Your task to perform on an android device: Open Google Chrome and click the shortcut for Amazon.com Image 0: 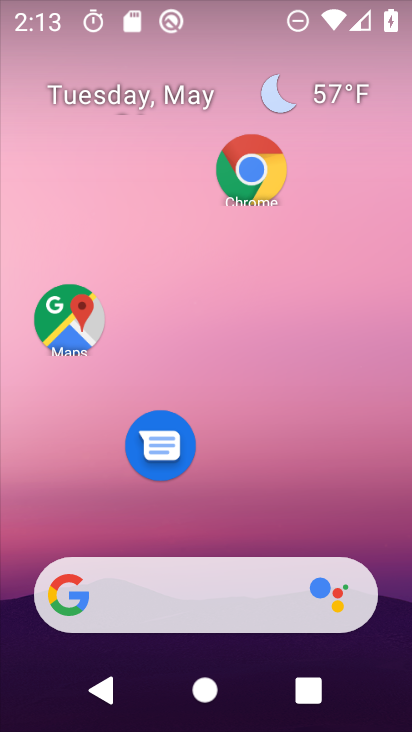
Step 0: click (250, 175)
Your task to perform on an android device: Open Google Chrome and click the shortcut for Amazon.com Image 1: 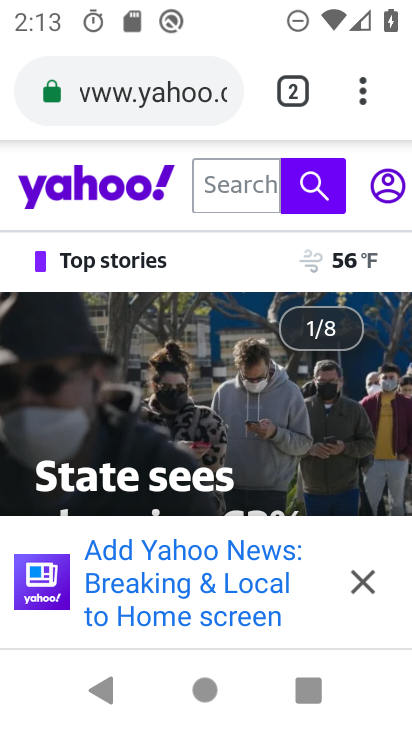
Step 1: click (361, 100)
Your task to perform on an android device: Open Google Chrome and click the shortcut for Amazon.com Image 2: 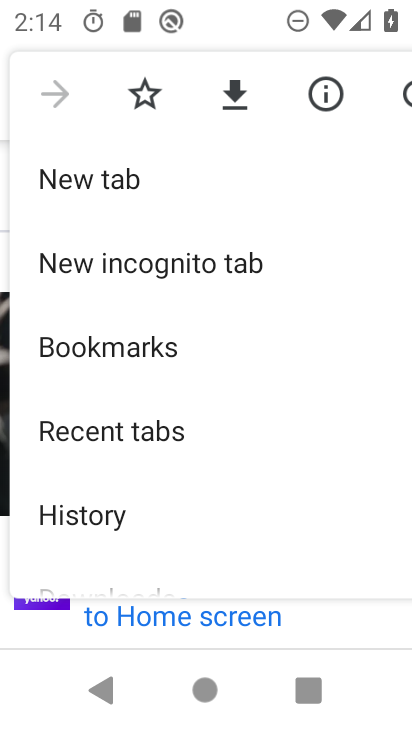
Step 2: click (115, 176)
Your task to perform on an android device: Open Google Chrome and click the shortcut for Amazon.com Image 3: 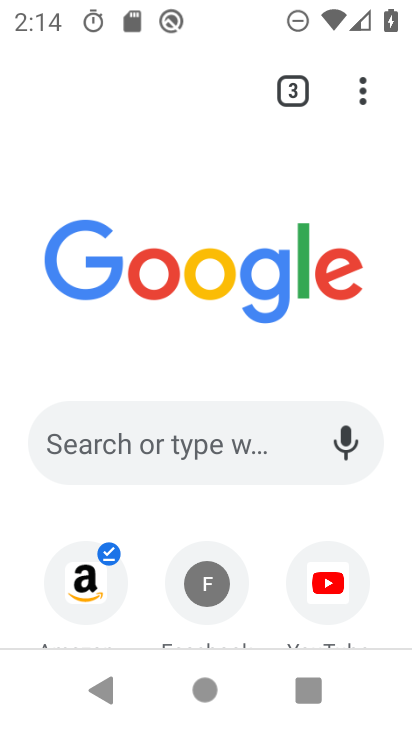
Step 3: click (90, 594)
Your task to perform on an android device: Open Google Chrome and click the shortcut for Amazon.com Image 4: 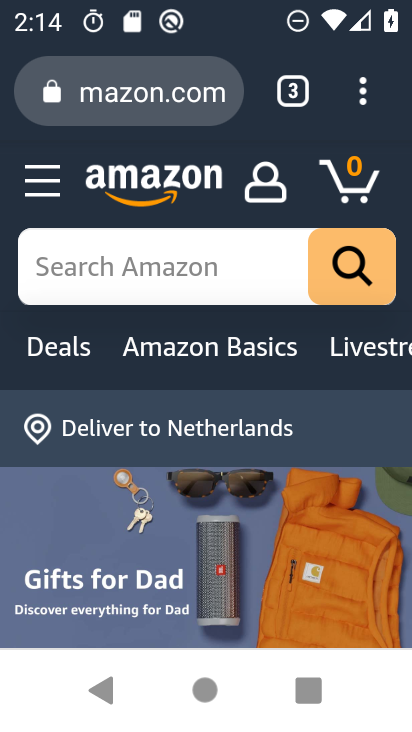
Step 4: task complete